Your task to perform on an android device: toggle translation in the chrome app Image 0: 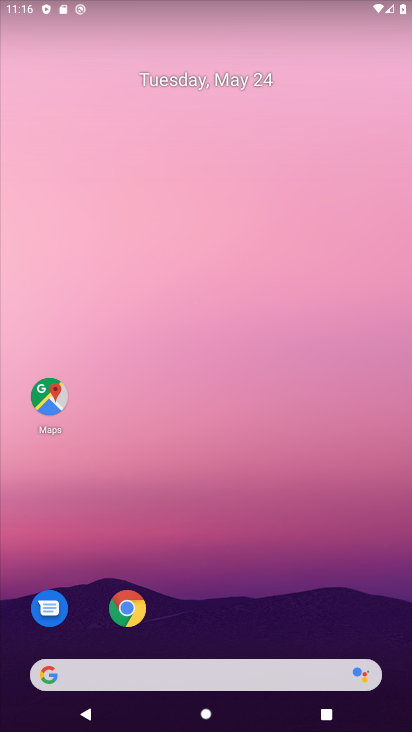
Step 0: task complete